Your task to perform on an android device: delete the emails in spam in the gmail app Image 0: 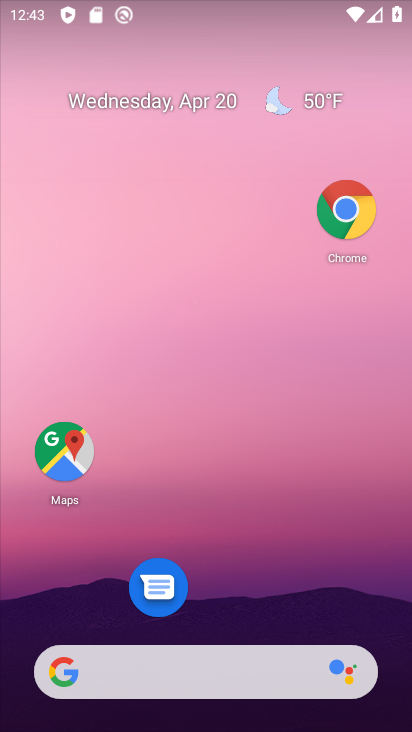
Step 0: drag from (229, 556) to (302, 68)
Your task to perform on an android device: delete the emails in spam in the gmail app Image 1: 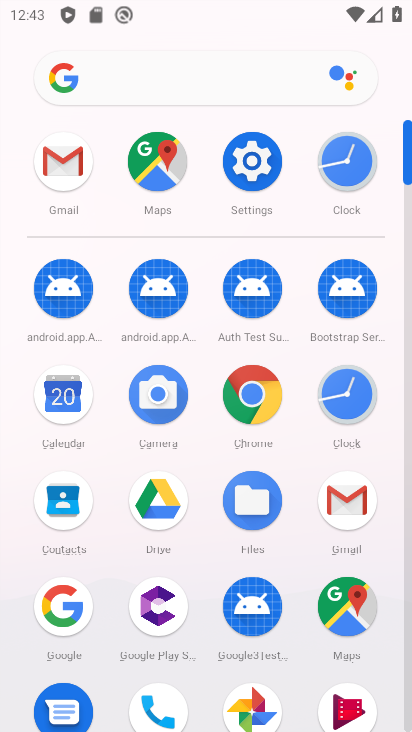
Step 1: click (330, 499)
Your task to perform on an android device: delete the emails in spam in the gmail app Image 2: 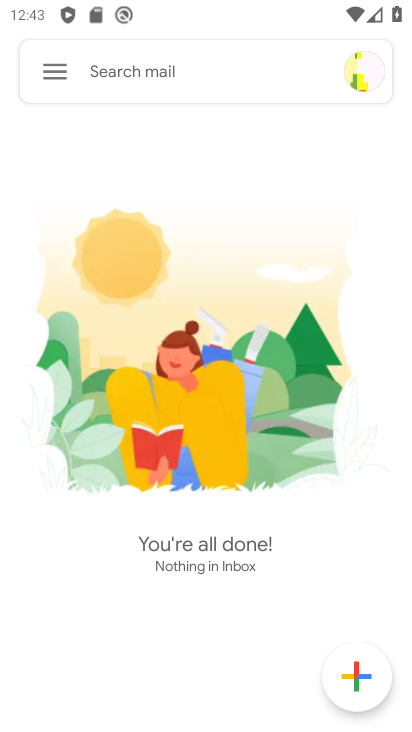
Step 2: click (59, 83)
Your task to perform on an android device: delete the emails in spam in the gmail app Image 3: 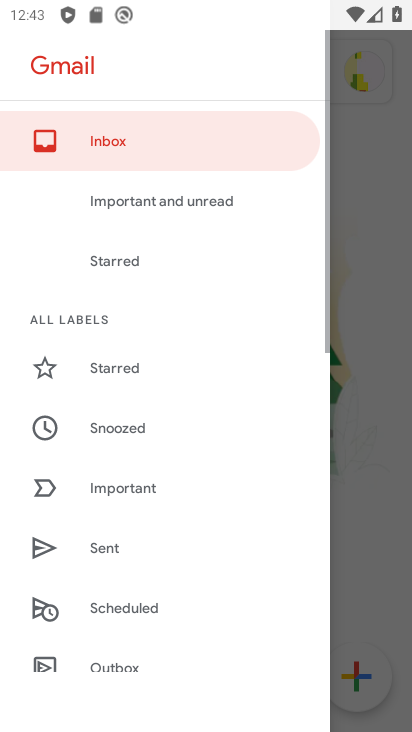
Step 3: drag from (113, 648) to (186, 178)
Your task to perform on an android device: delete the emails in spam in the gmail app Image 4: 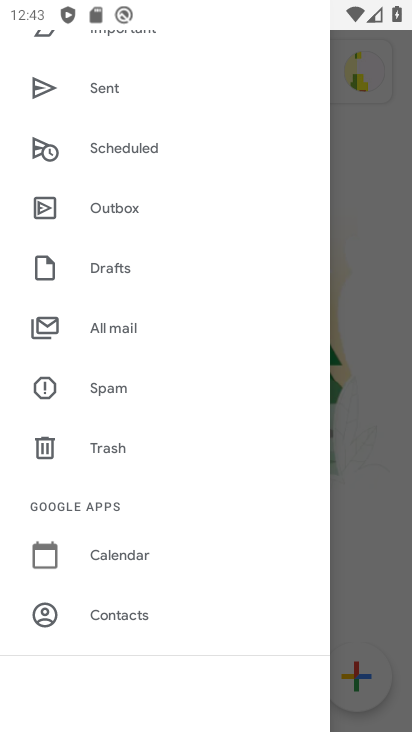
Step 4: click (97, 382)
Your task to perform on an android device: delete the emails in spam in the gmail app Image 5: 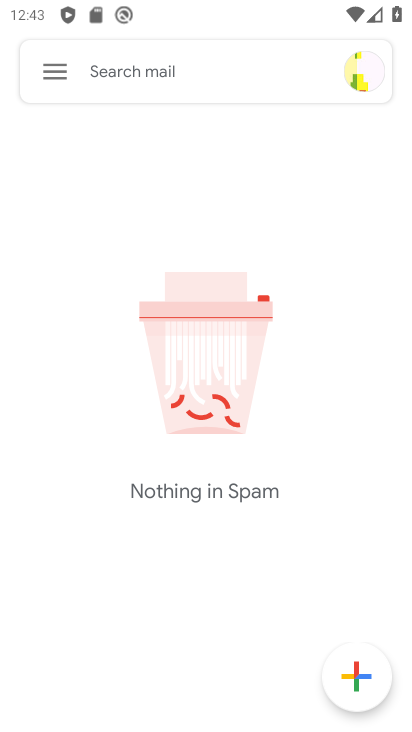
Step 5: task complete